Your task to perform on an android device: turn vacation reply on in the gmail app Image 0: 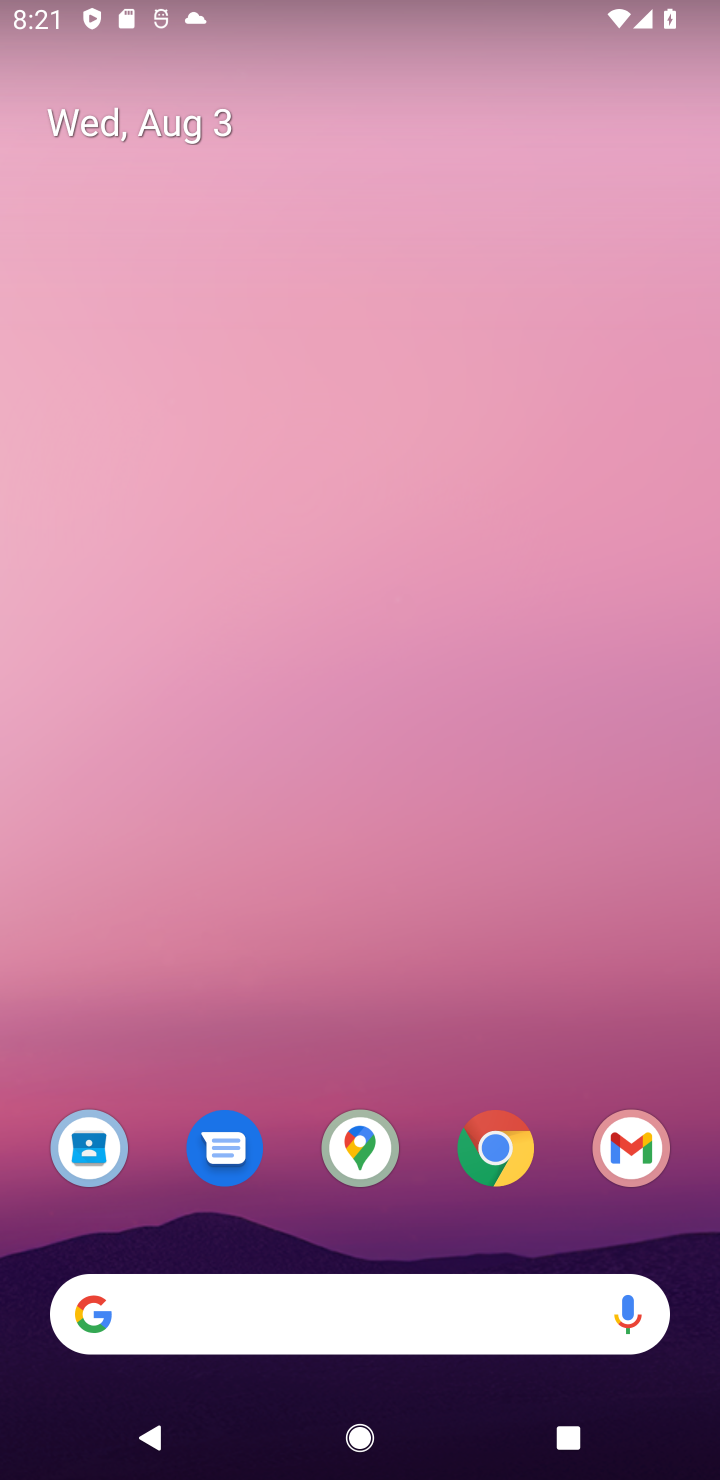
Step 0: drag from (544, 1073) to (482, 132)
Your task to perform on an android device: turn vacation reply on in the gmail app Image 1: 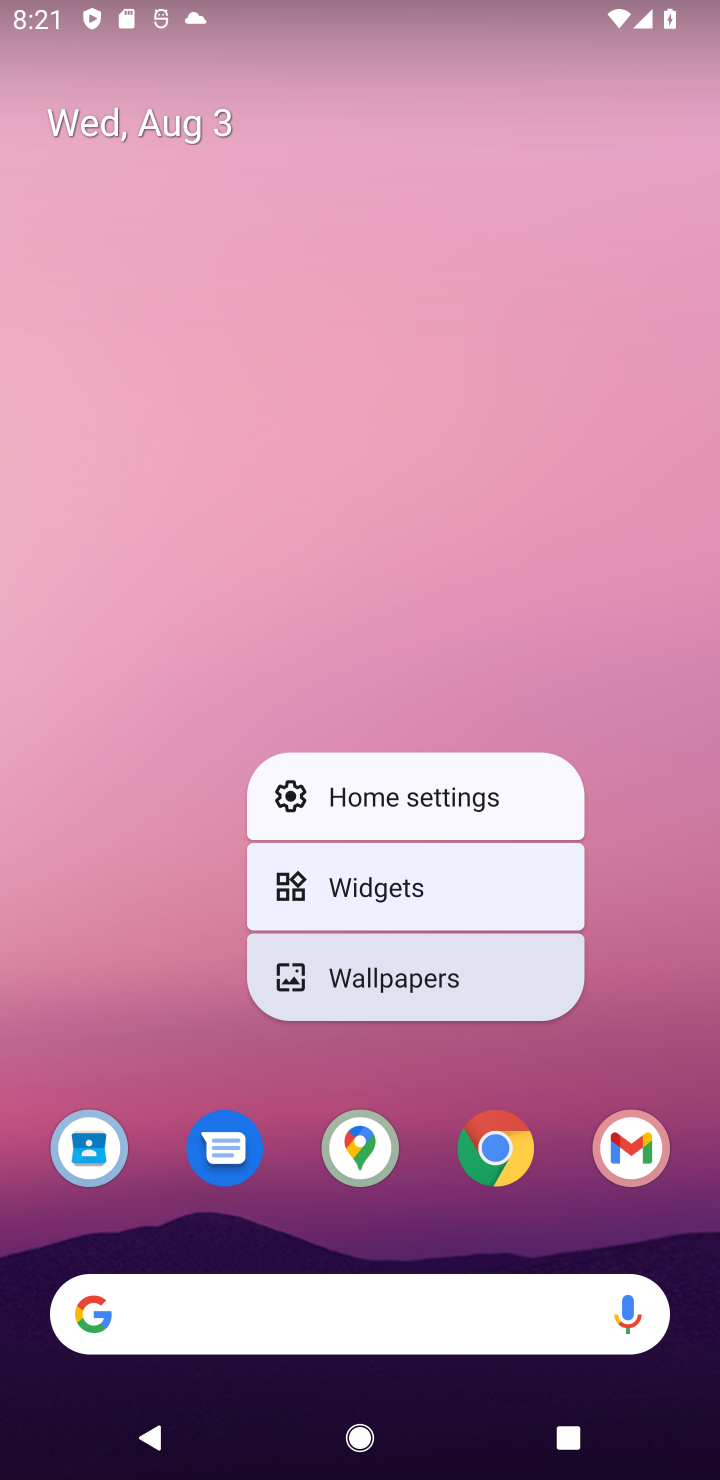
Step 1: click (626, 1164)
Your task to perform on an android device: turn vacation reply on in the gmail app Image 2: 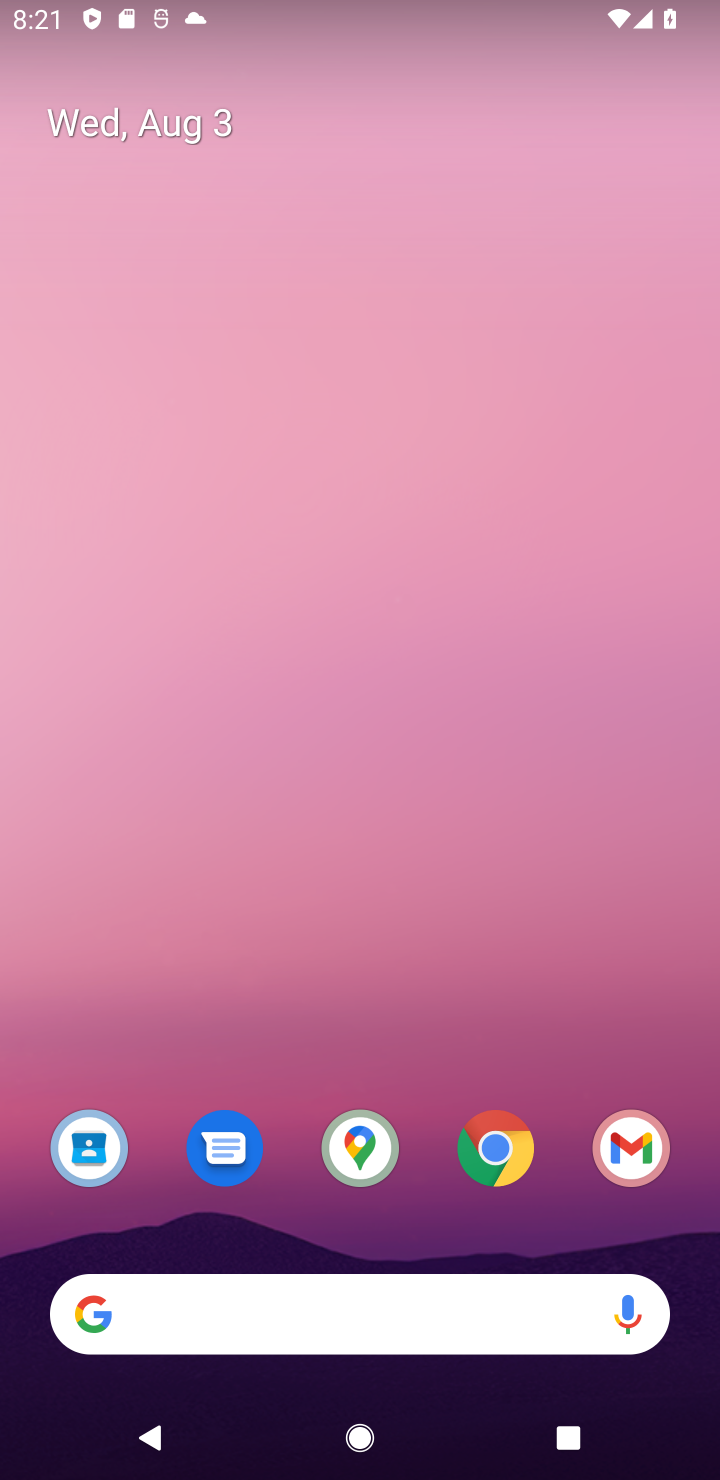
Step 2: click (642, 1163)
Your task to perform on an android device: turn vacation reply on in the gmail app Image 3: 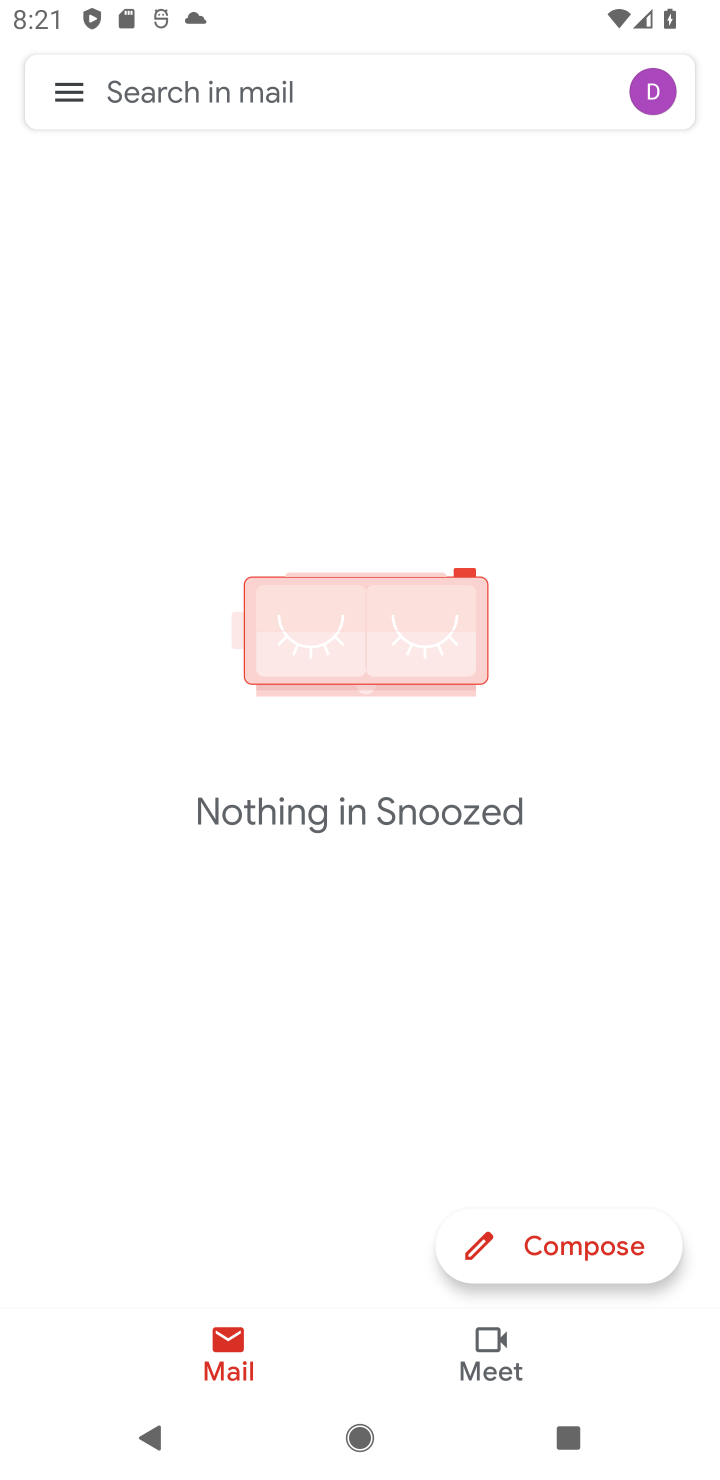
Step 3: click (61, 90)
Your task to perform on an android device: turn vacation reply on in the gmail app Image 4: 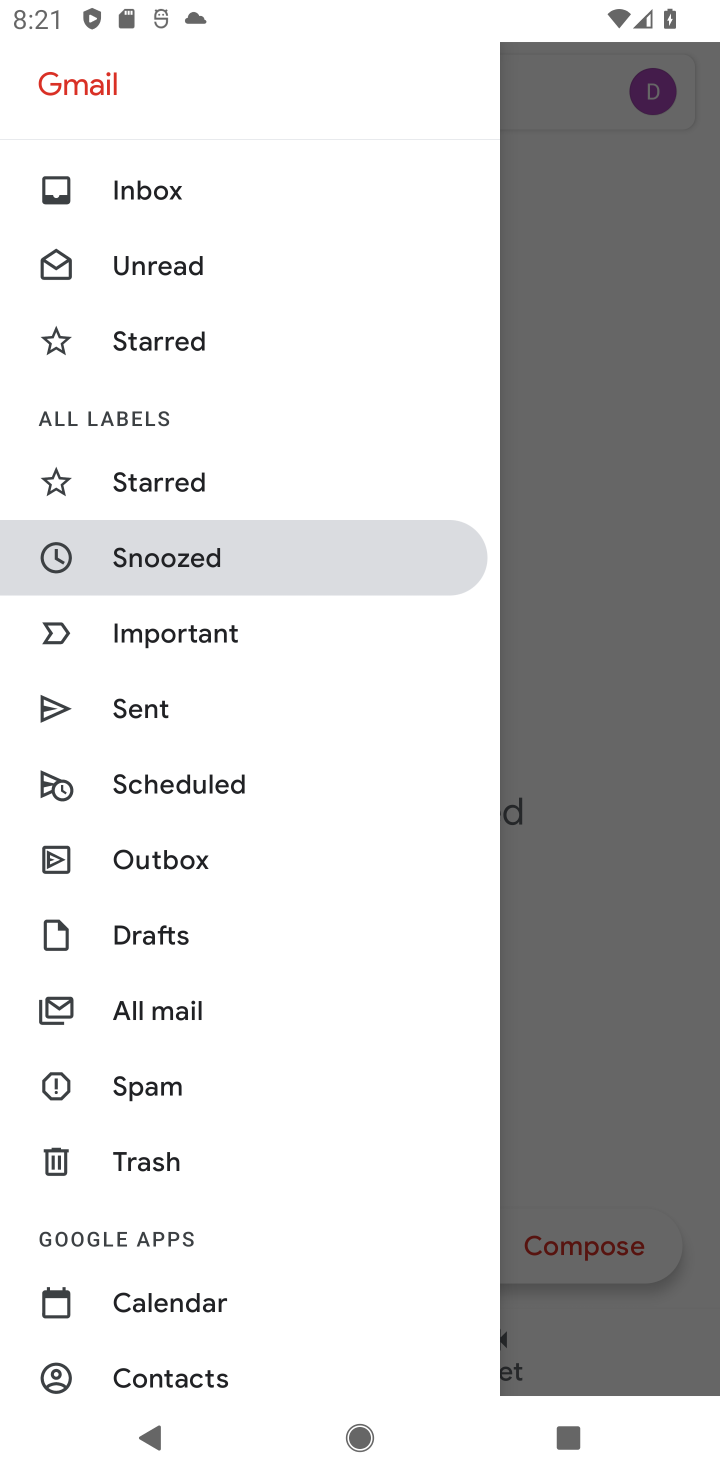
Step 4: drag from (253, 1325) to (229, 475)
Your task to perform on an android device: turn vacation reply on in the gmail app Image 5: 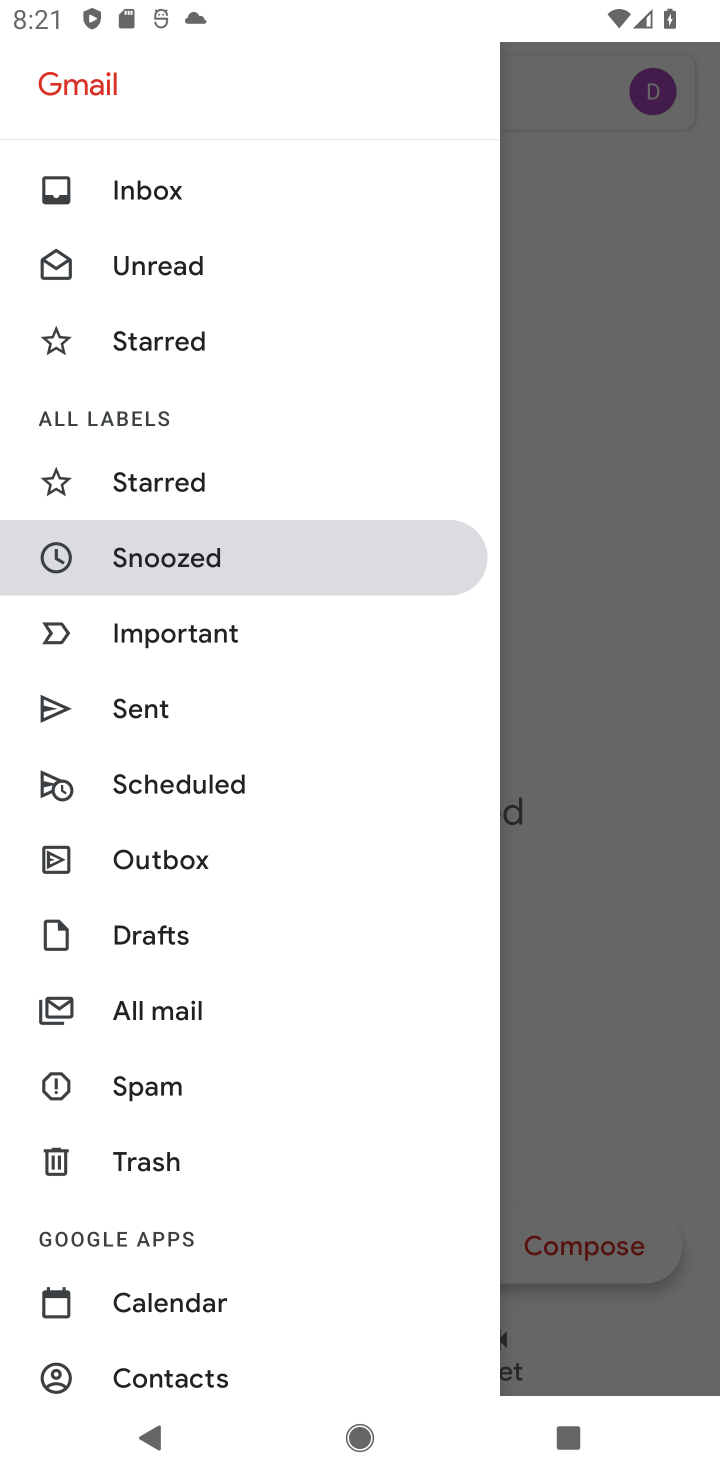
Step 5: drag from (245, 1367) to (225, 486)
Your task to perform on an android device: turn vacation reply on in the gmail app Image 6: 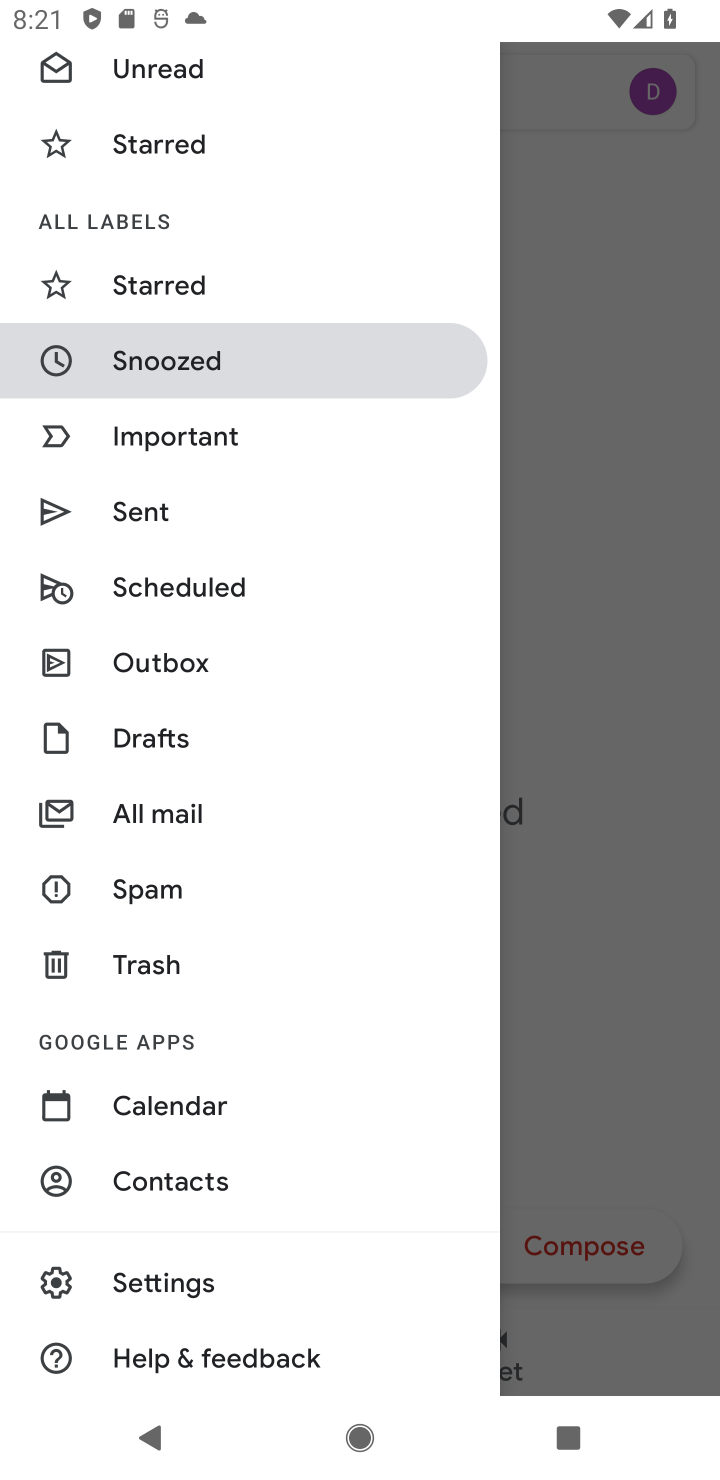
Step 6: click (342, 1283)
Your task to perform on an android device: turn vacation reply on in the gmail app Image 7: 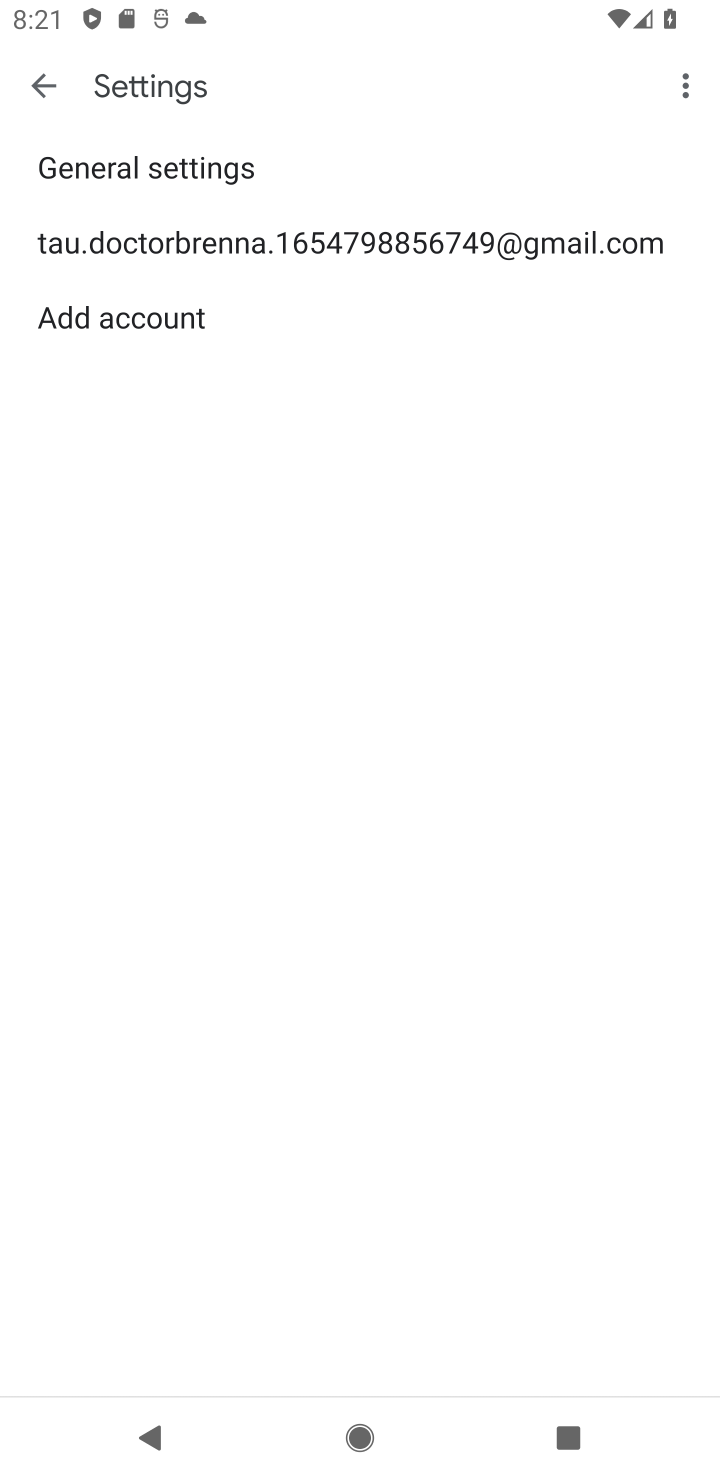
Step 7: click (451, 227)
Your task to perform on an android device: turn vacation reply on in the gmail app Image 8: 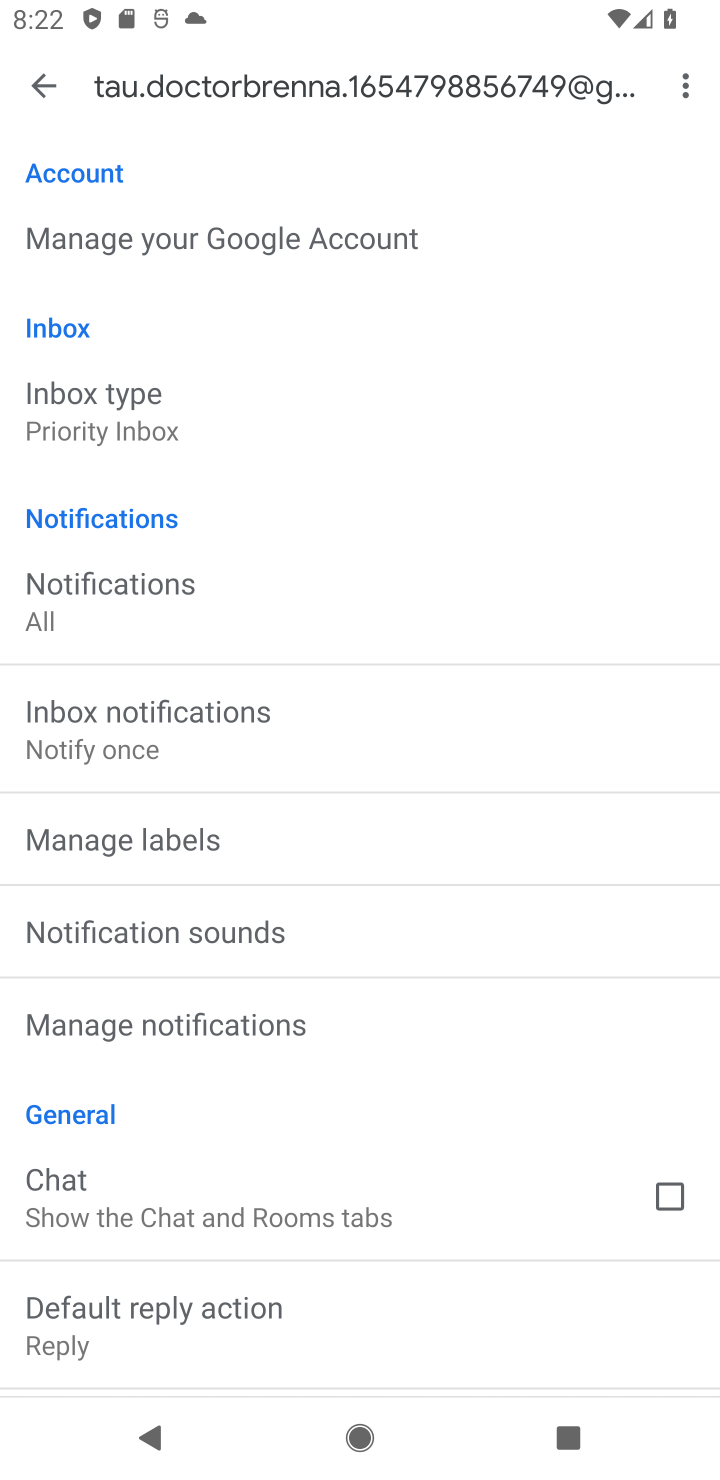
Step 8: drag from (352, 1115) to (310, 264)
Your task to perform on an android device: turn vacation reply on in the gmail app Image 9: 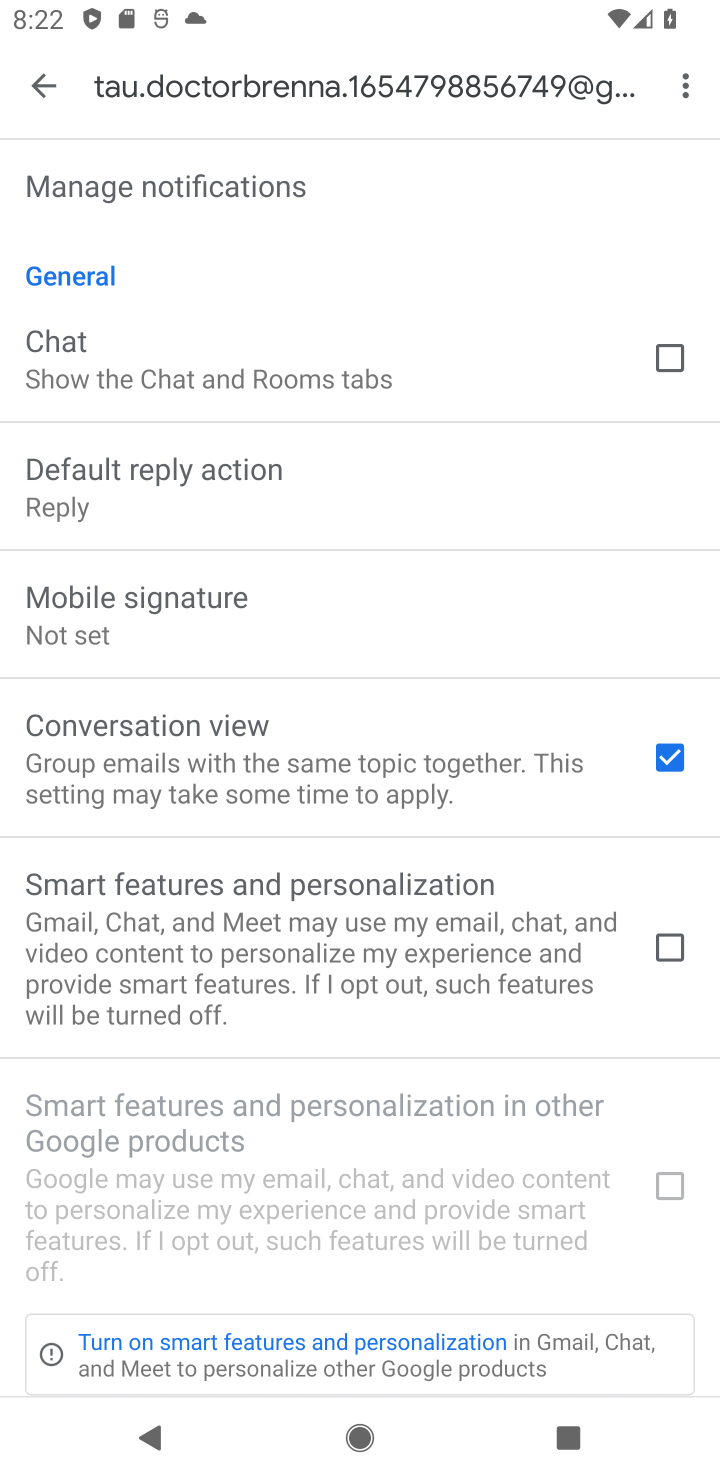
Step 9: drag from (353, 1333) to (316, 464)
Your task to perform on an android device: turn vacation reply on in the gmail app Image 10: 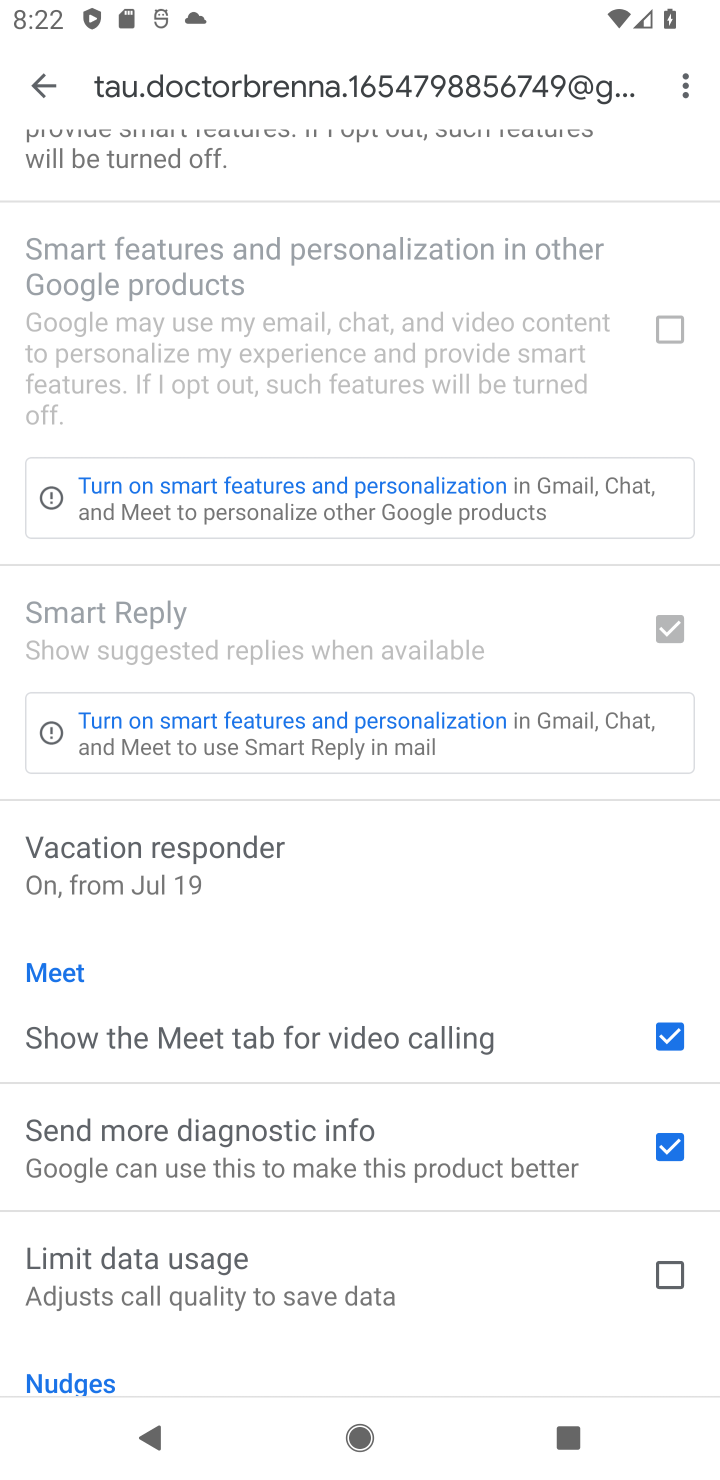
Step 10: click (280, 888)
Your task to perform on an android device: turn vacation reply on in the gmail app Image 11: 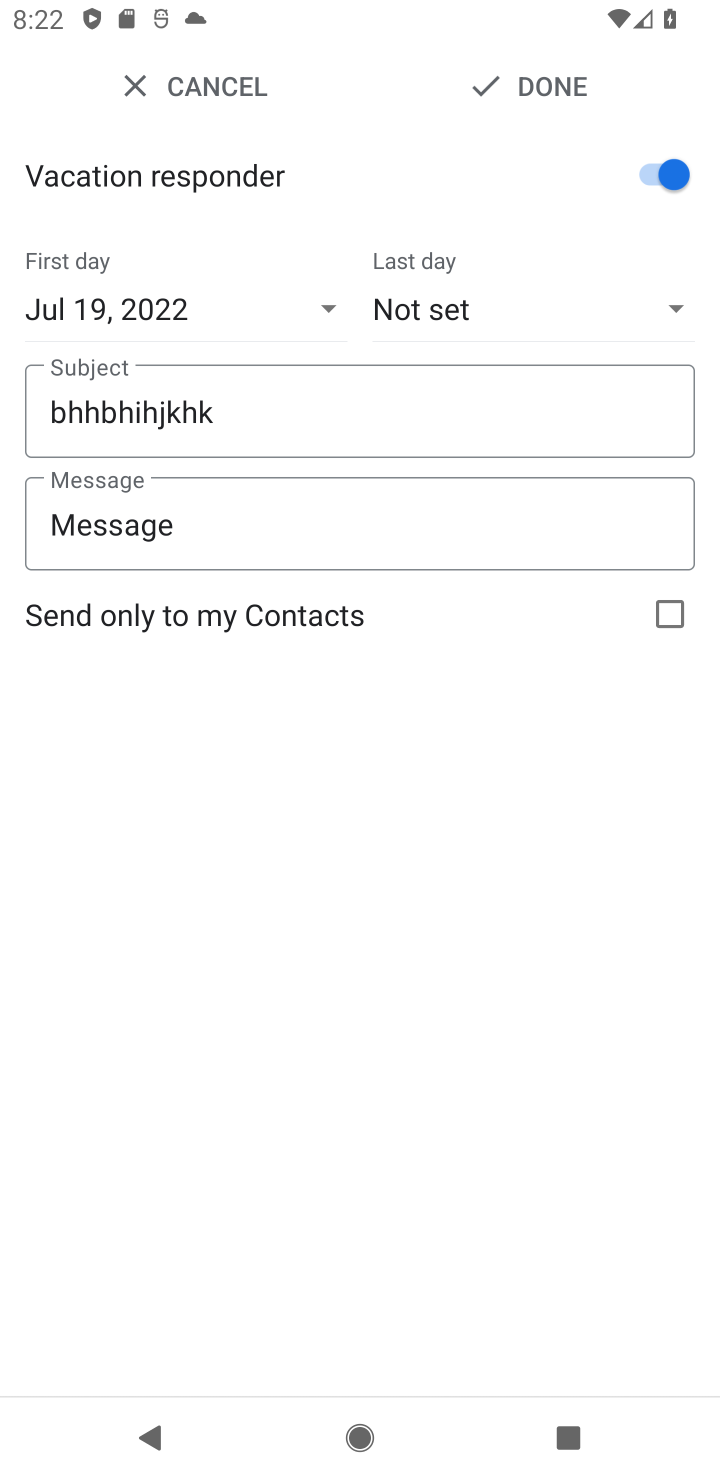
Step 11: click (412, 392)
Your task to perform on an android device: turn vacation reply on in the gmail app Image 12: 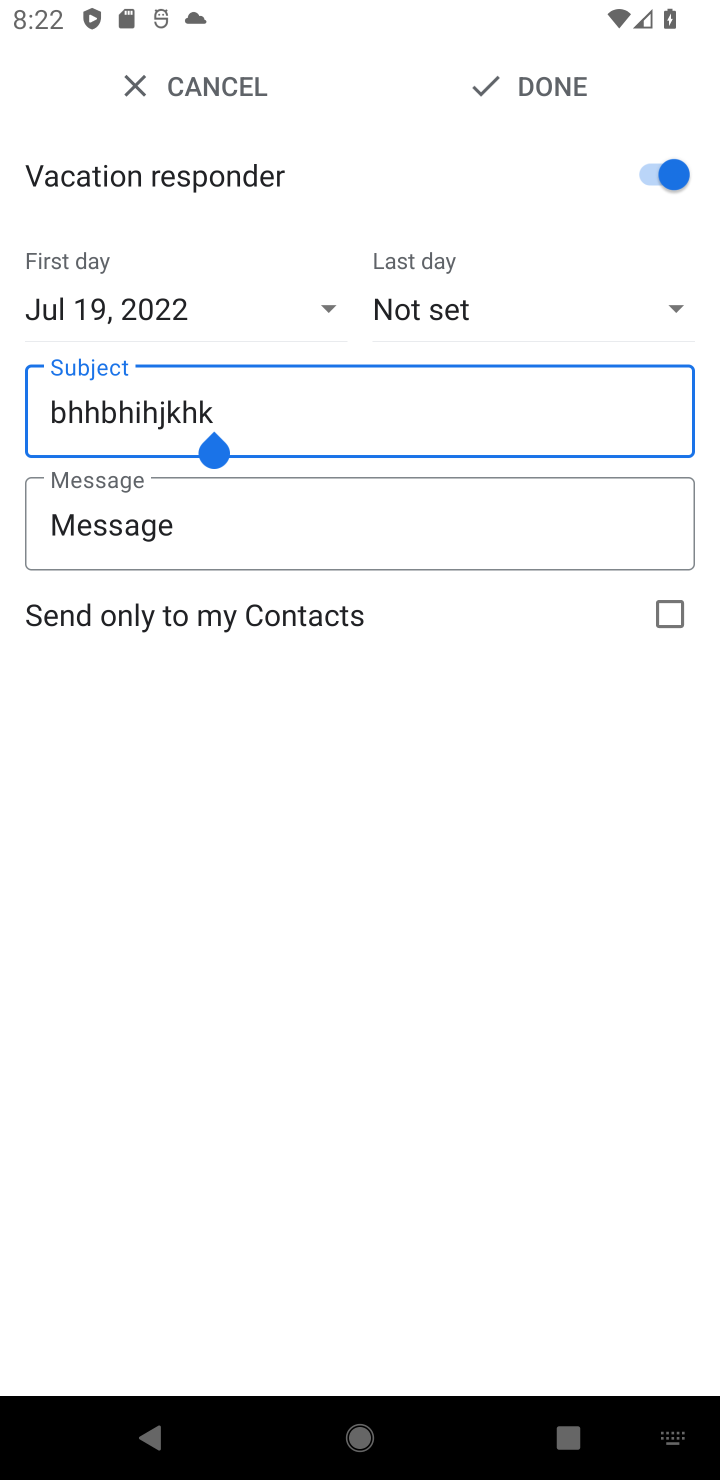
Step 12: type "vjgv"
Your task to perform on an android device: turn vacation reply on in the gmail app Image 13: 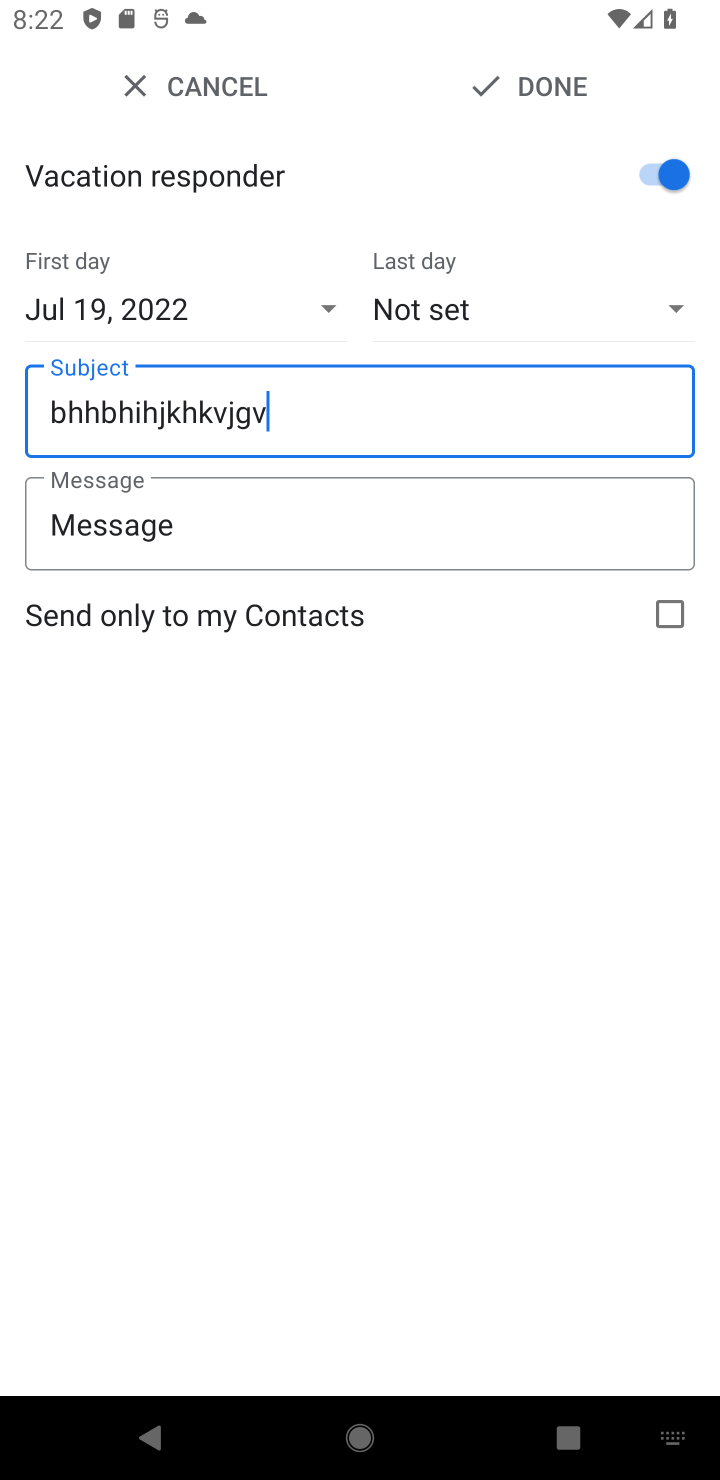
Step 13: click (543, 110)
Your task to perform on an android device: turn vacation reply on in the gmail app Image 14: 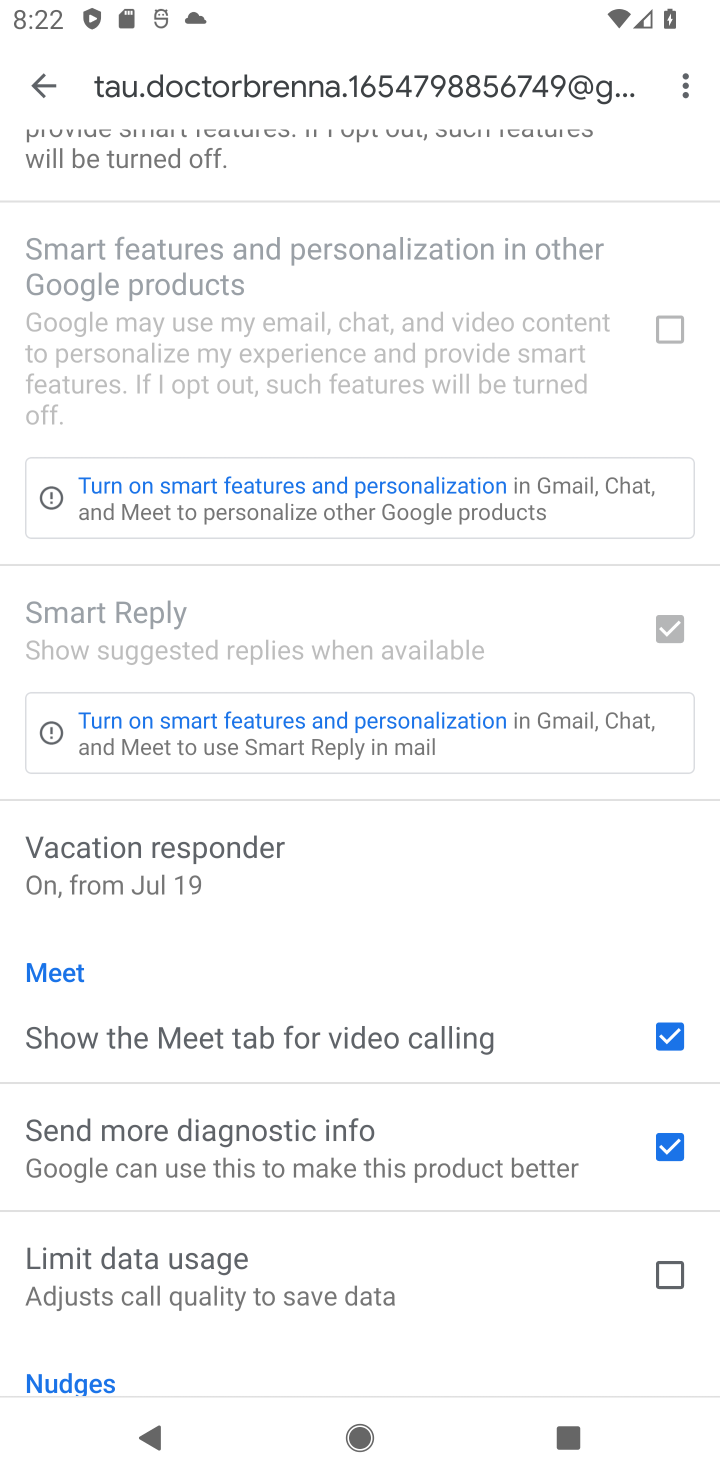
Step 14: task complete